Your task to perform on an android device: open a bookmark in the chrome app Image 0: 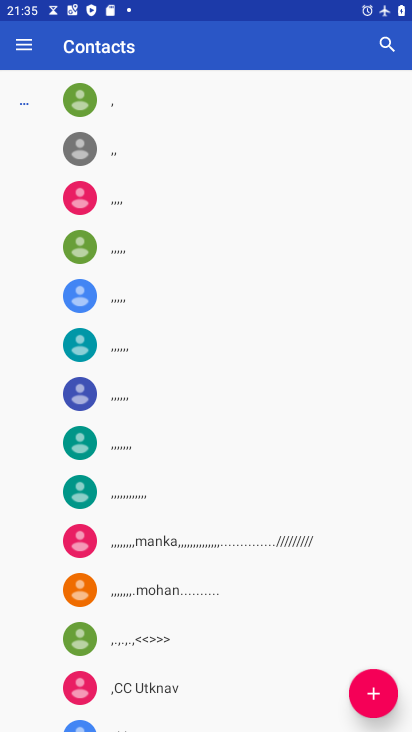
Step 0: press home button
Your task to perform on an android device: open a bookmark in the chrome app Image 1: 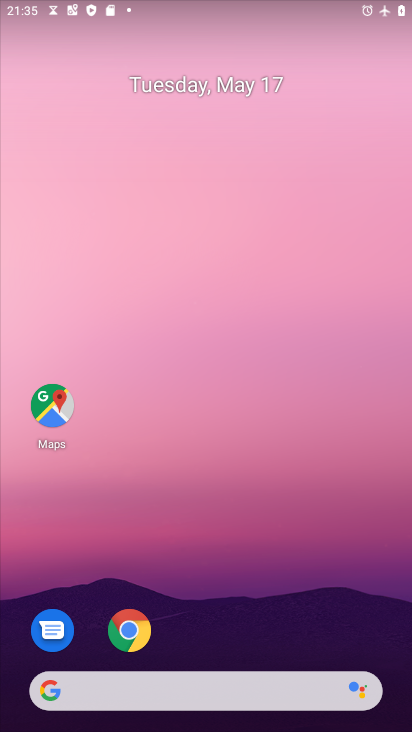
Step 1: drag from (174, 447) to (161, 160)
Your task to perform on an android device: open a bookmark in the chrome app Image 2: 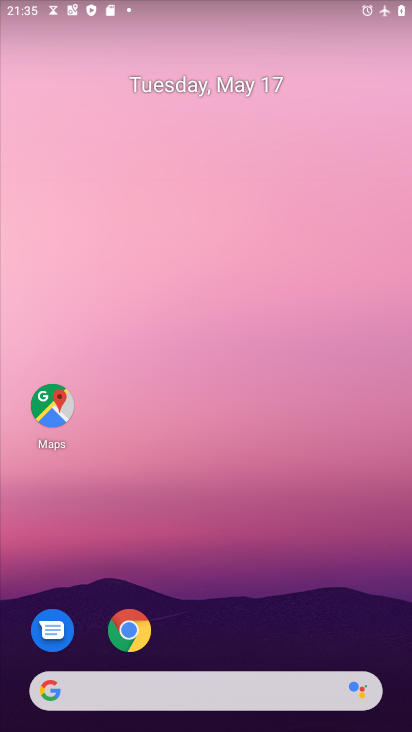
Step 2: click (140, 638)
Your task to perform on an android device: open a bookmark in the chrome app Image 3: 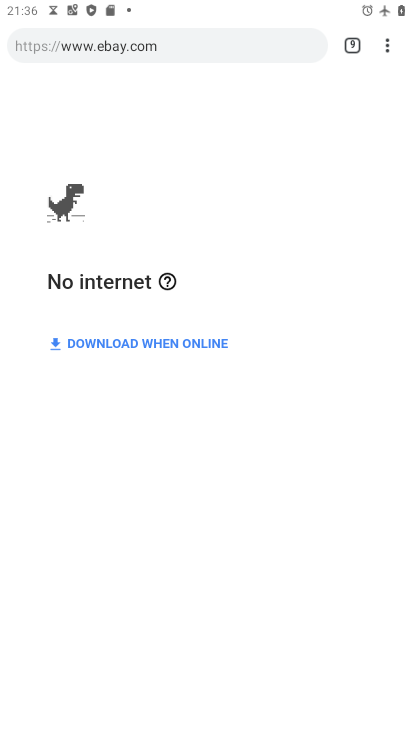
Step 3: click (388, 50)
Your task to perform on an android device: open a bookmark in the chrome app Image 4: 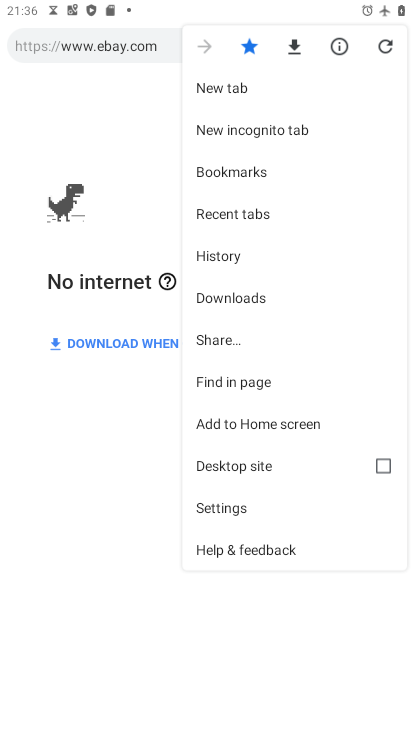
Step 4: click (220, 173)
Your task to perform on an android device: open a bookmark in the chrome app Image 5: 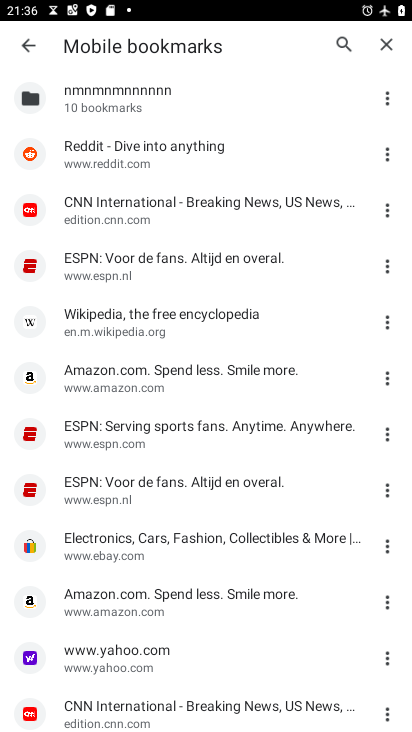
Step 5: task complete